Your task to perform on an android device: toggle airplane mode Image 0: 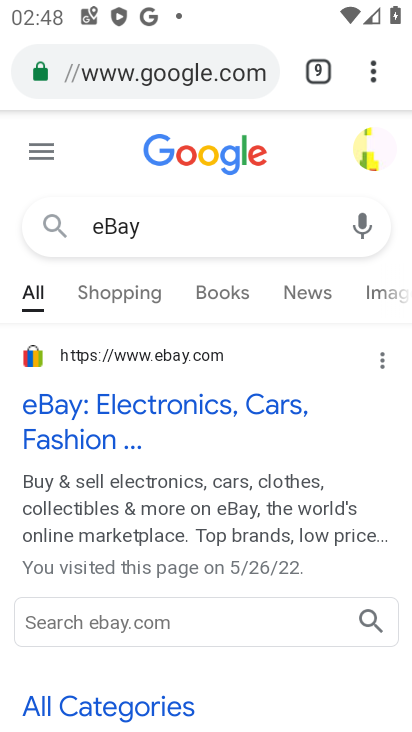
Step 0: press home button
Your task to perform on an android device: toggle airplane mode Image 1: 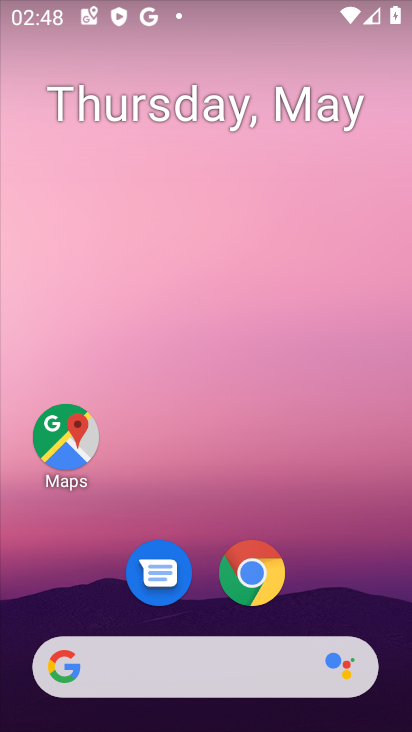
Step 1: drag from (318, 578) to (319, 207)
Your task to perform on an android device: toggle airplane mode Image 2: 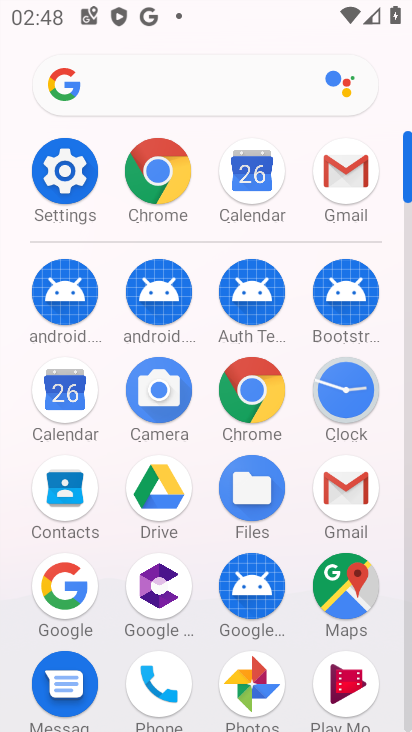
Step 2: click (67, 158)
Your task to perform on an android device: toggle airplane mode Image 3: 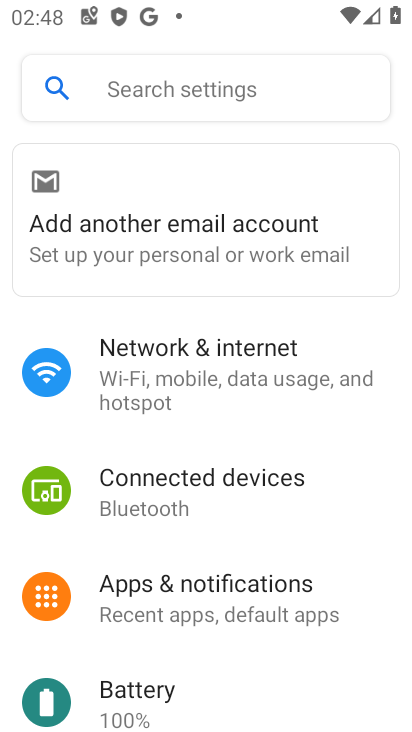
Step 3: click (176, 371)
Your task to perform on an android device: toggle airplane mode Image 4: 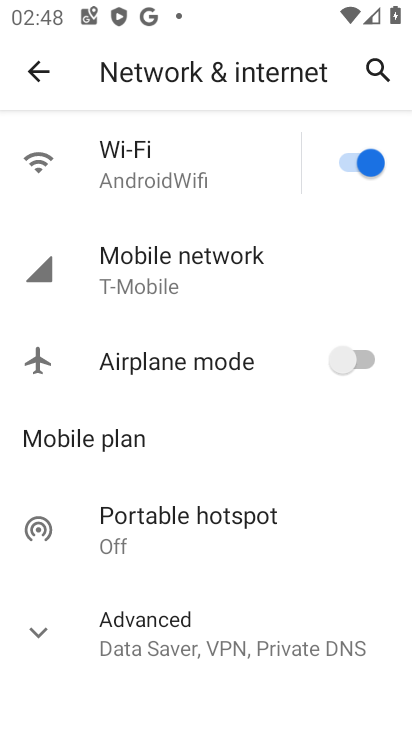
Step 4: click (363, 357)
Your task to perform on an android device: toggle airplane mode Image 5: 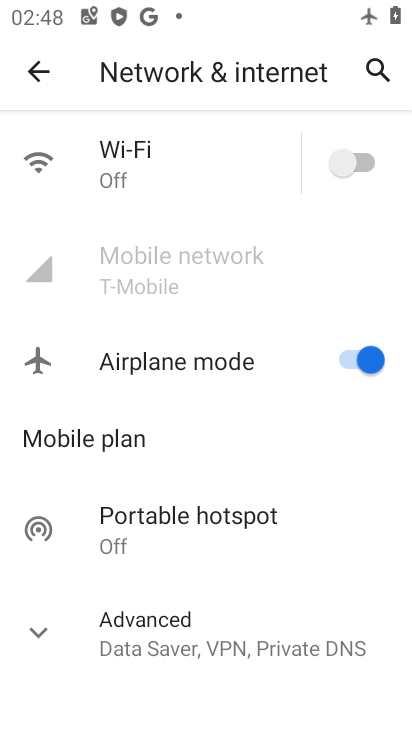
Step 5: task complete